Your task to perform on an android device: allow cookies in the chrome app Image 0: 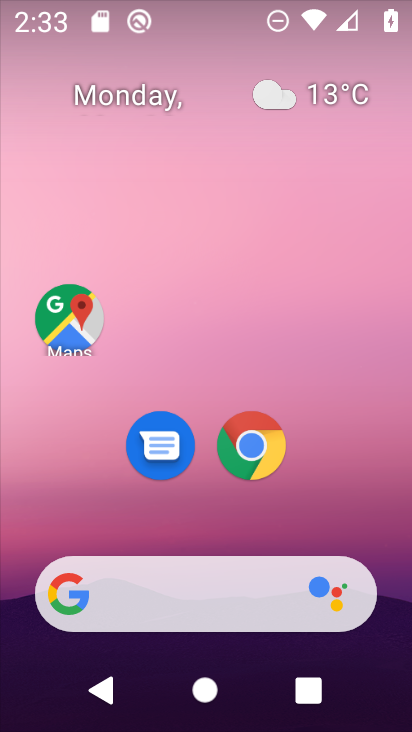
Step 0: drag from (402, 540) to (398, 160)
Your task to perform on an android device: allow cookies in the chrome app Image 1: 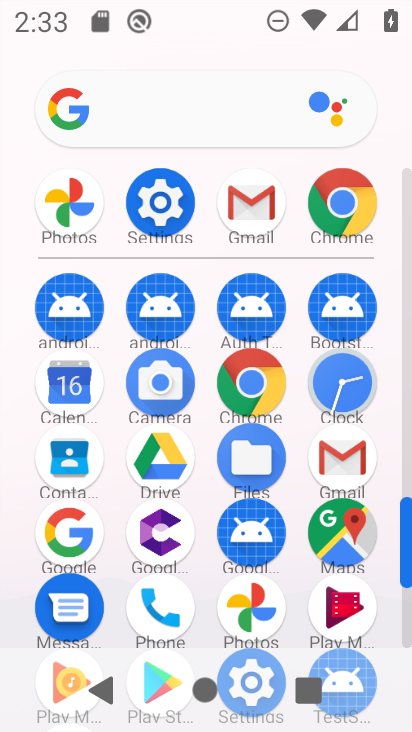
Step 1: click (349, 208)
Your task to perform on an android device: allow cookies in the chrome app Image 2: 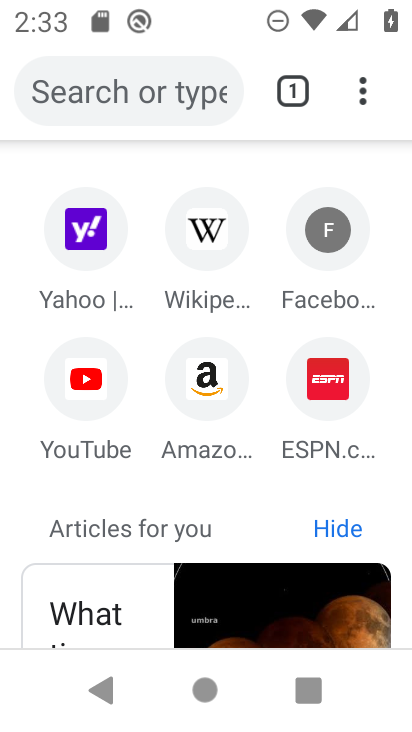
Step 2: click (369, 82)
Your task to perform on an android device: allow cookies in the chrome app Image 3: 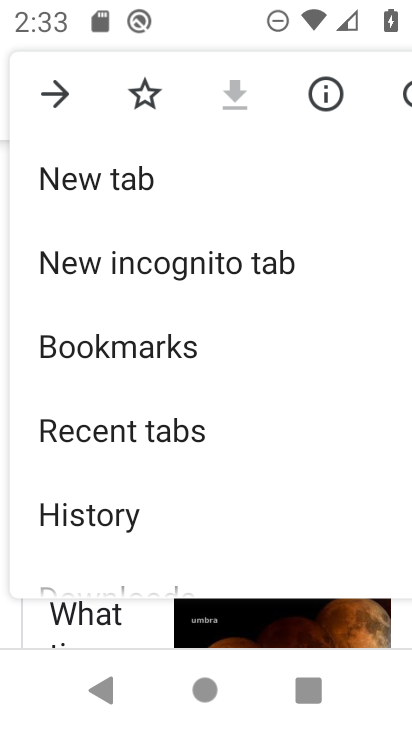
Step 3: drag from (207, 558) to (257, 184)
Your task to perform on an android device: allow cookies in the chrome app Image 4: 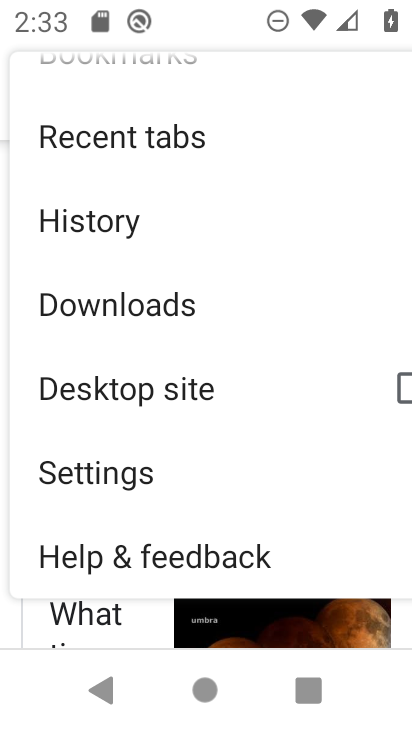
Step 4: click (159, 220)
Your task to perform on an android device: allow cookies in the chrome app Image 5: 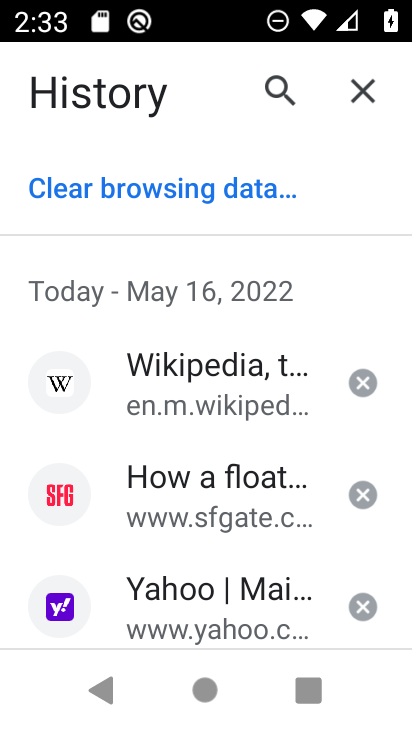
Step 5: click (174, 184)
Your task to perform on an android device: allow cookies in the chrome app Image 6: 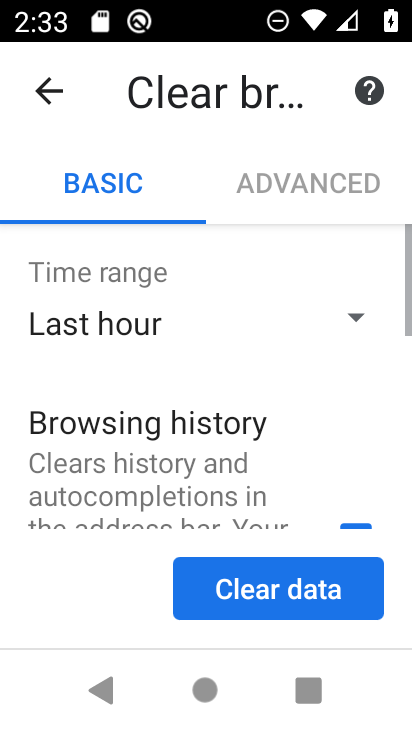
Step 6: task complete